Your task to perform on an android device: create a new album in the google photos Image 0: 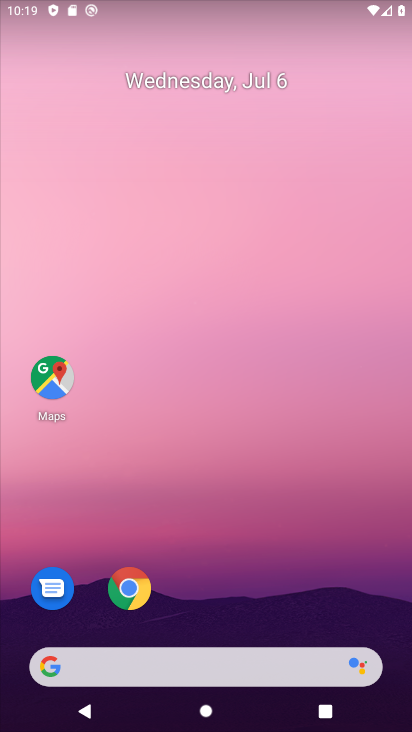
Step 0: drag from (130, 666) to (349, 12)
Your task to perform on an android device: create a new album in the google photos Image 1: 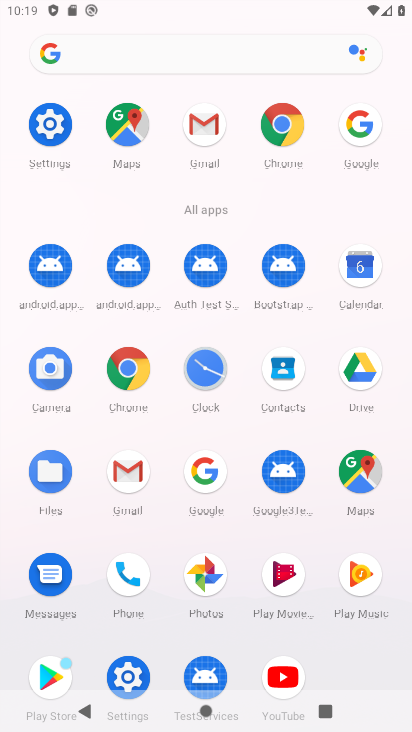
Step 1: click (207, 568)
Your task to perform on an android device: create a new album in the google photos Image 2: 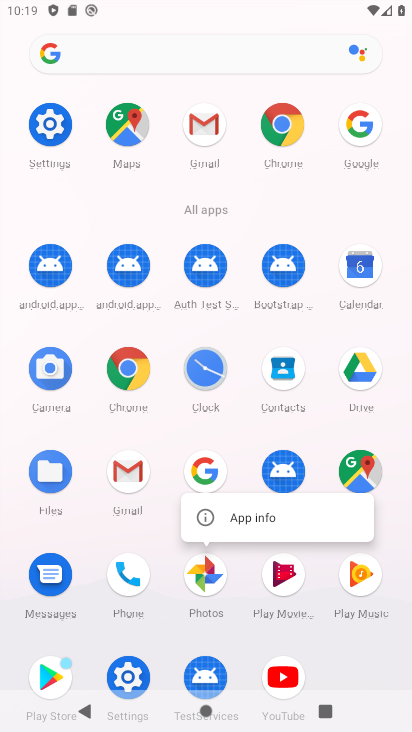
Step 2: click (210, 577)
Your task to perform on an android device: create a new album in the google photos Image 3: 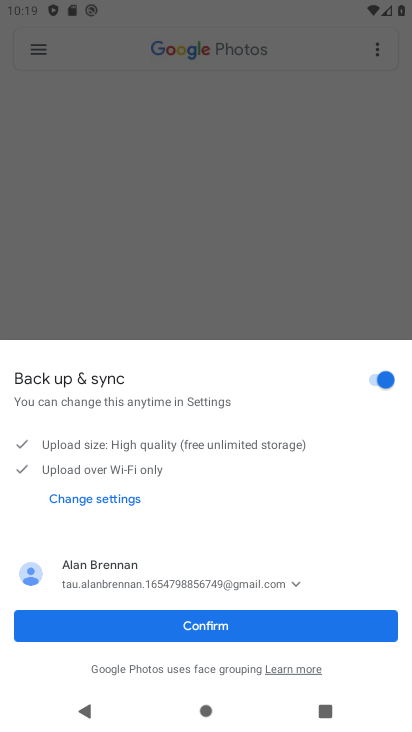
Step 3: click (185, 624)
Your task to perform on an android device: create a new album in the google photos Image 4: 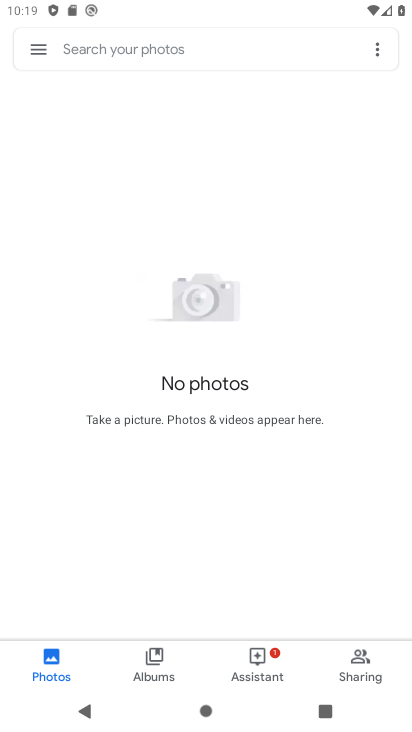
Step 4: click (146, 672)
Your task to perform on an android device: create a new album in the google photos Image 5: 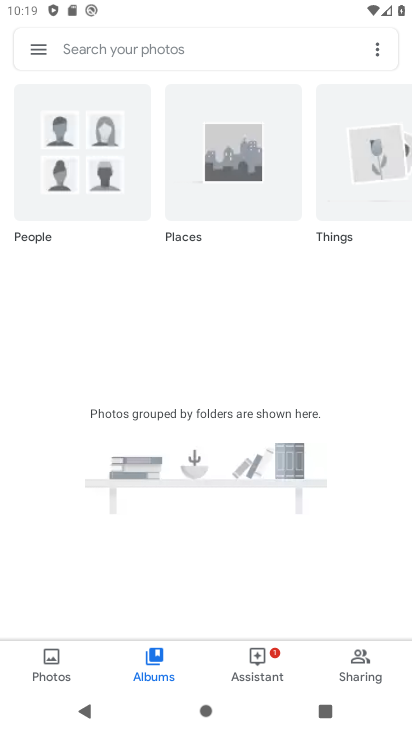
Step 5: task complete